Your task to perform on an android device: open chrome privacy settings Image 0: 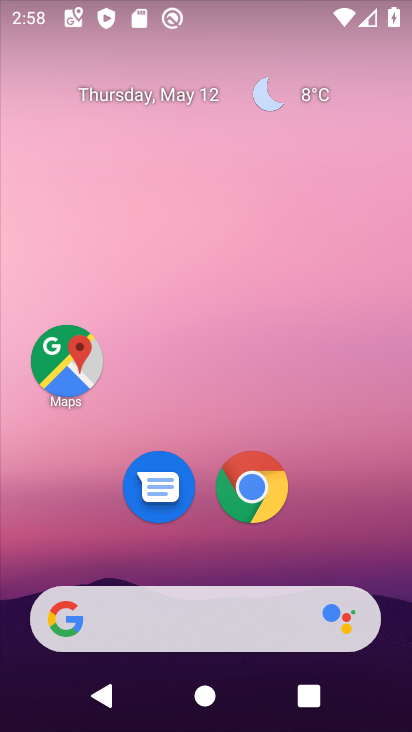
Step 0: drag from (339, 506) to (315, 21)
Your task to perform on an android device: open chrome privacy settings Image 1: 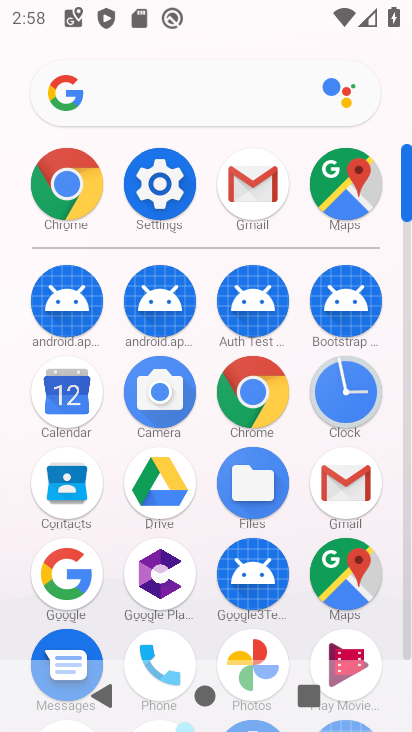
Step 1: click (68, 182)
Your task to perform on an android device: open chrome privacy settings Image 2: 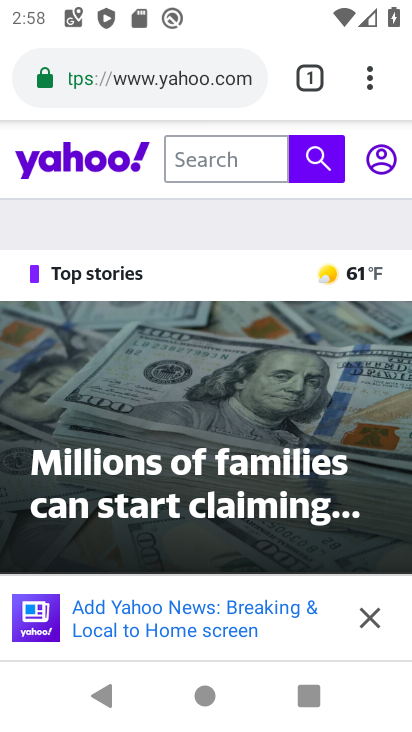
Step 2: drag from (373, 78) to (112, 557)
Your task to perform on an android device: open chrome privacy settings Image 3: 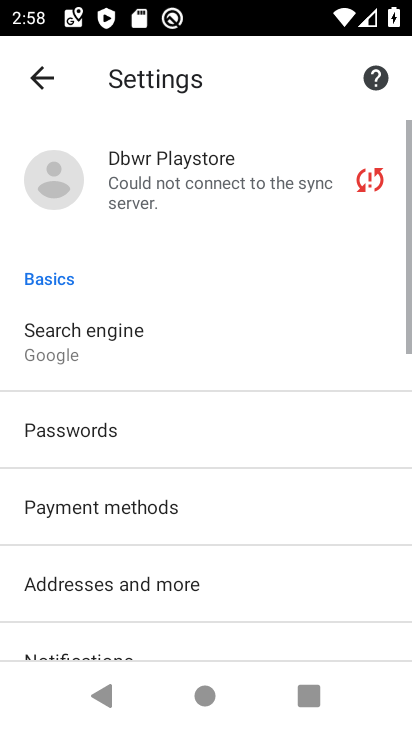
Step 3: drag from (118, 531) to (226, 149)
Your task to perform on an android device: open chrome privacy settings Image 4: 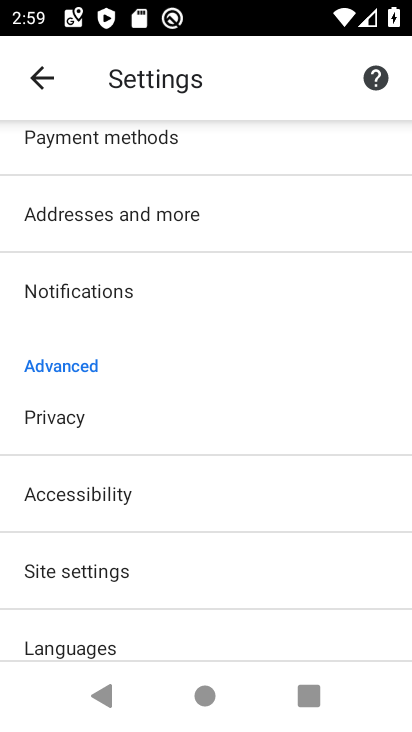
Step 4: click (85, 415)
Your task to perform on an android device: open chrome privacy settings Image 5: 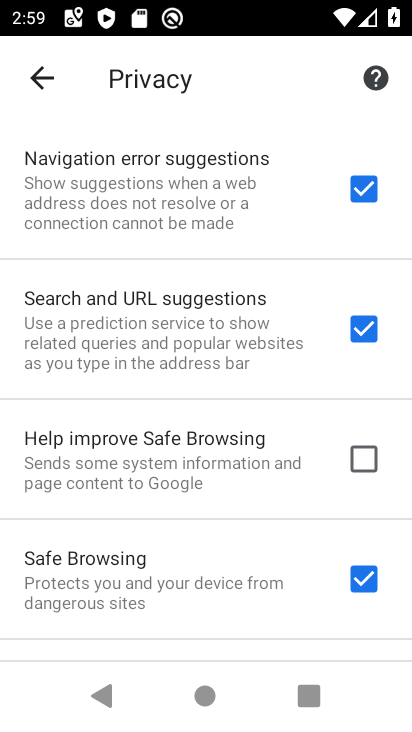
Step 5: task complete